Your task to perform on an android device: turn on improve location accuracy Image 0: 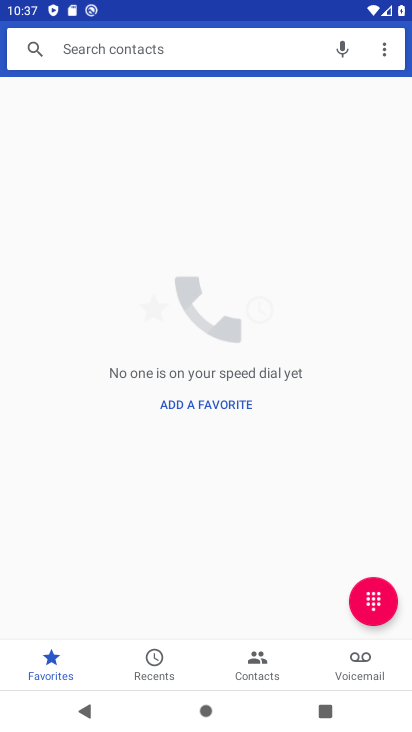
Step 0: press home button
Your task to perform on an android device: turn on improve location accuracy Image 1: 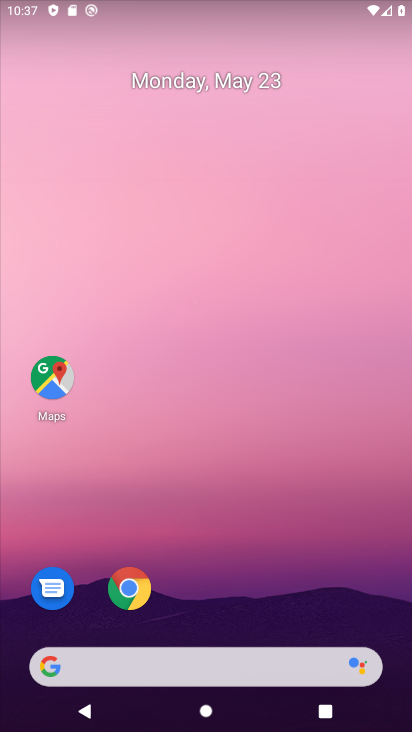
Step 1: drag from (349, 586) to (319, 149)
Your task to perform on an android device: turn on improve location accuracy Image 2: 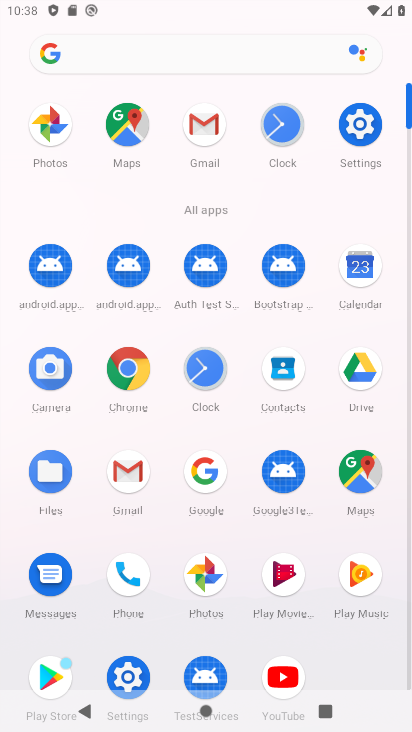
Step 2: click (116, 673)
Your task to perform on an android device: turn on improve location accuracy Image 3: 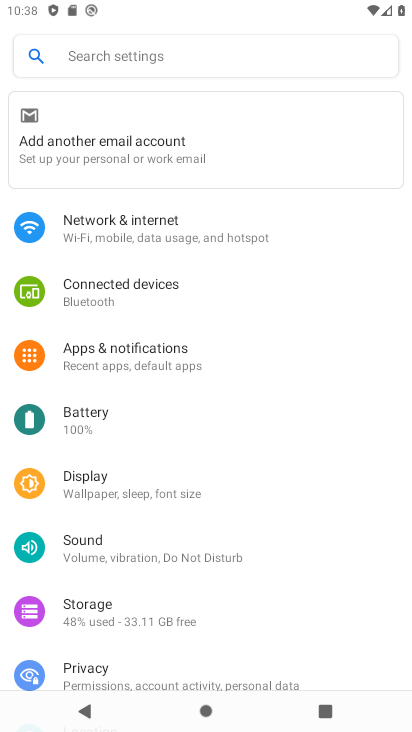
Step 3: drag from (280, 606) to (326, 245)
Your task to perform on an android device: turn on improve location accuracy Image 4: 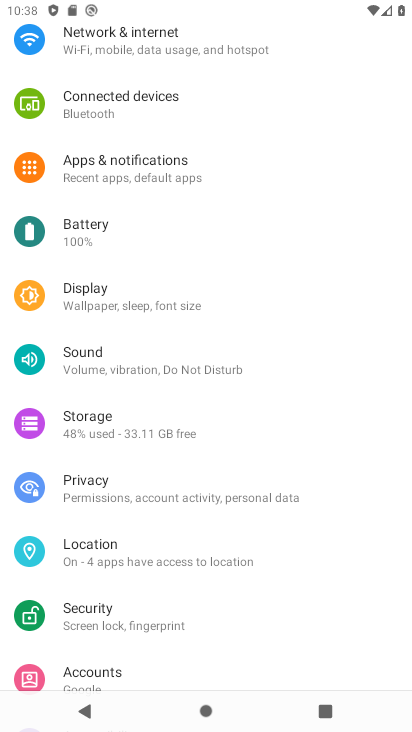
Step 4: click (129, 556)
Your task to perform on an android device: turn on improve location accuracy Image 5: 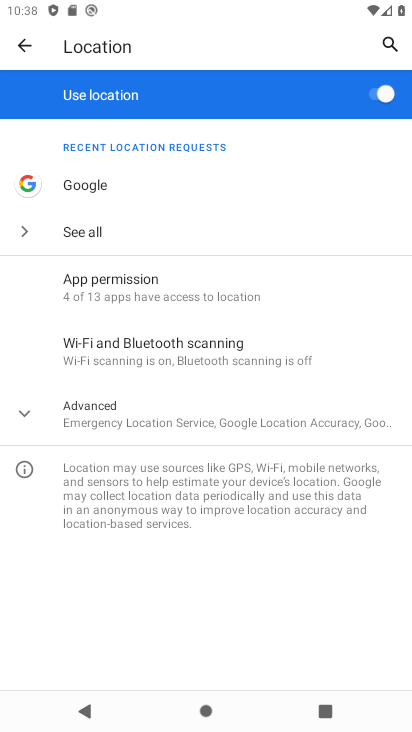
Step 5: click (207, 417)
Your task to perform on an android device: turn on improve location accuracy Image 6: 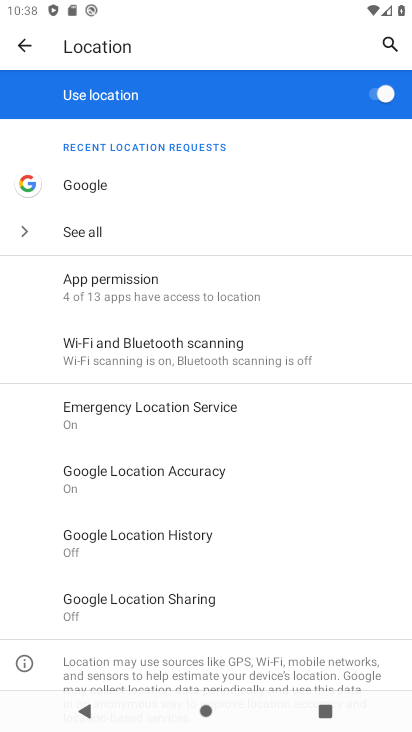
Step 6: click (210, 482)
Your task to perform on an android device: turn on improve location accuracy Image 7: 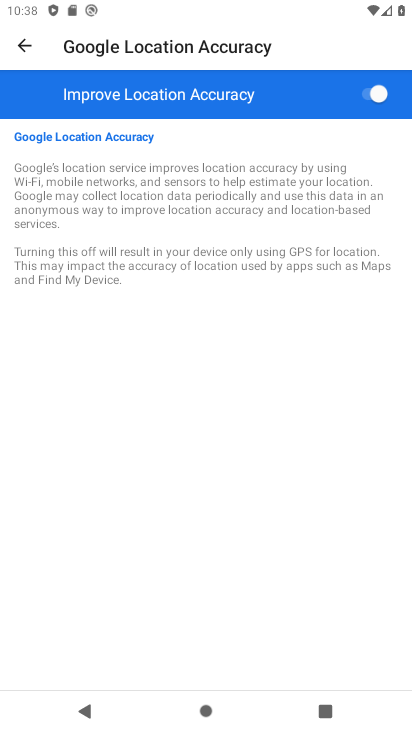
Step 7: task complete